Your task to perform on an android device: Open eBay Image 0: 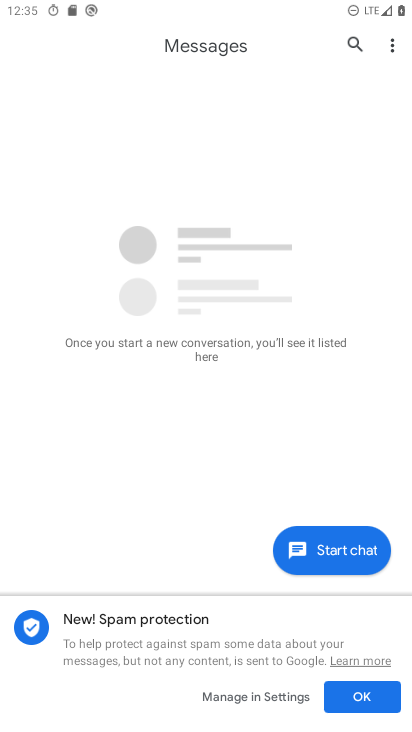
Step 0: press home button
Your task to perform on an android device: Open eBay Image 1: 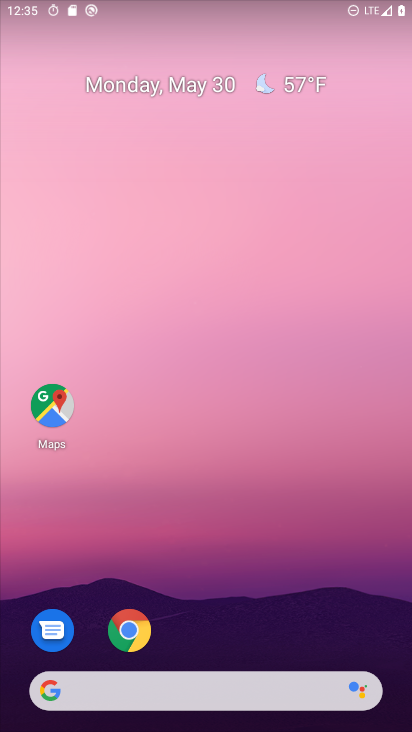
Step 1: drag from (243, 725) to (237, 182)
Your task to perform on an android device: Open eBay Image 2: 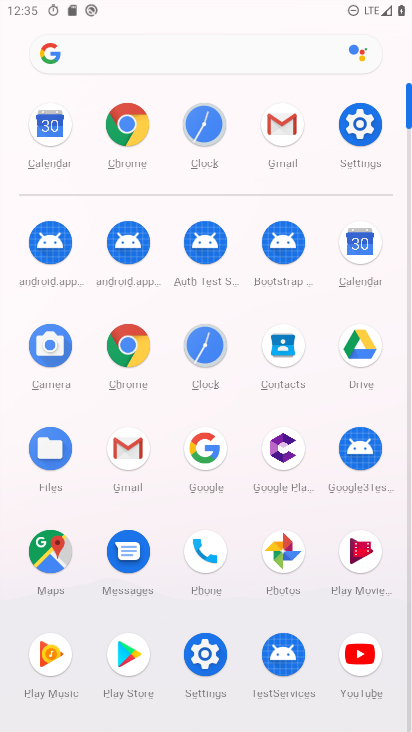
Step 2: click (127, 135)
Your task to perform on an android device: Open eBay Image 3: 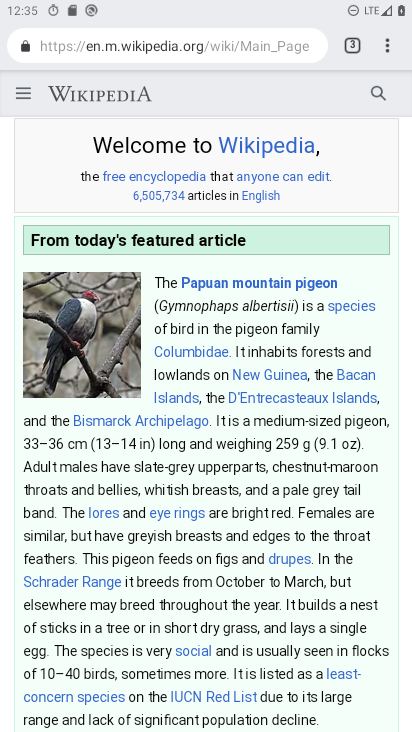
Step 3: click (347, 43)
Your task to perform on an android device: Open eBay Image 4: 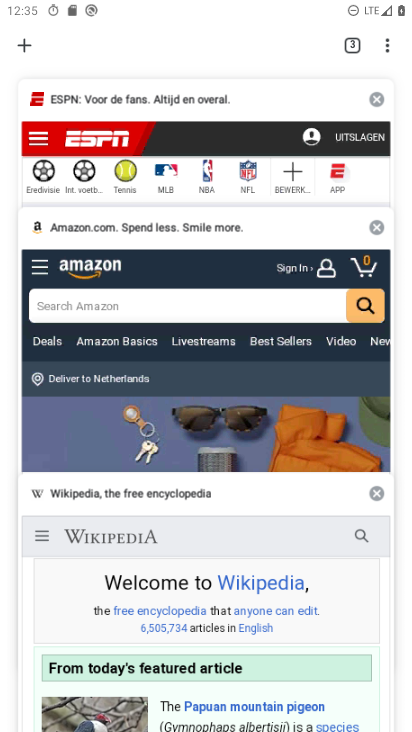
Step 4: click (35, 48)
Your task to perform on an android device: Open eBay Image 5: 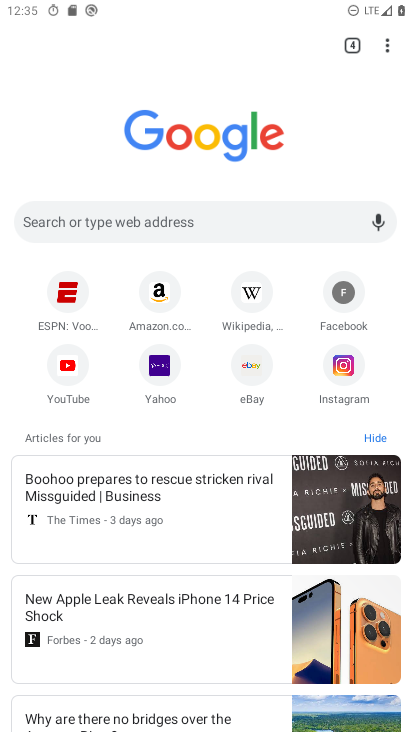
Step 5: click (254, 367)
Your task to perform on an android device: Open eBay Image 6: 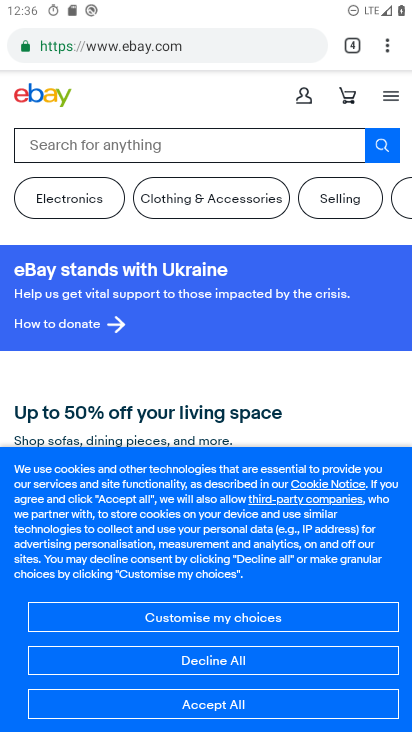
Step 6: task complete